Your task to perform on an android device: open chrome privacy settings Image 0: 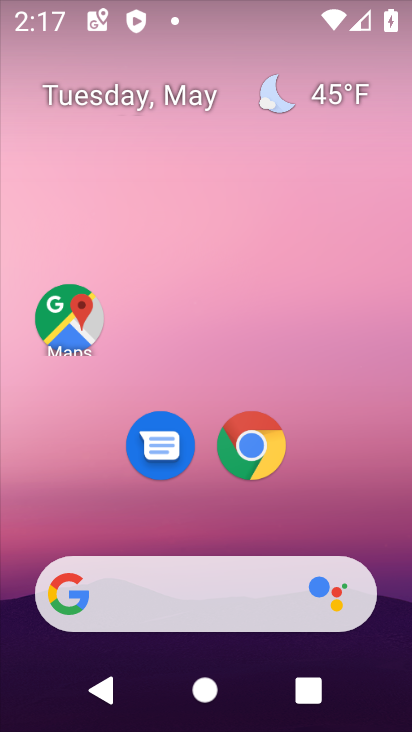
Step 0: click (251, 438)
Your task to perform on an android device: open chrome privacy settings Image 1: 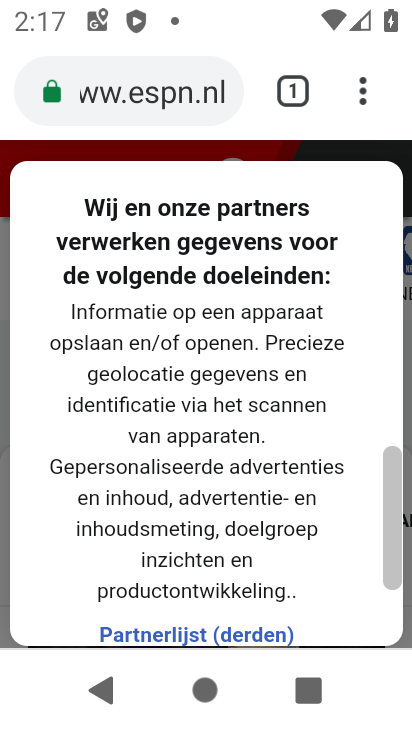
Step 1: click (353, 87)
Your task to perform on an android device: open chrome privacy settings Image 2: 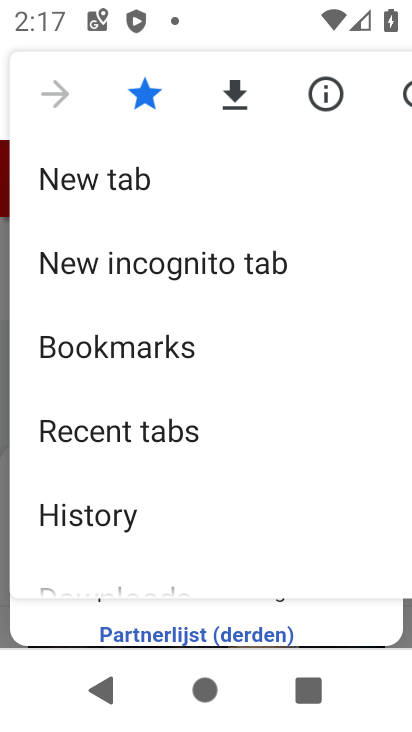
Step 2: drag from (147, 515) to (166, 317)
Your task to perform on an android device: open chrome privacy settings Image 3: 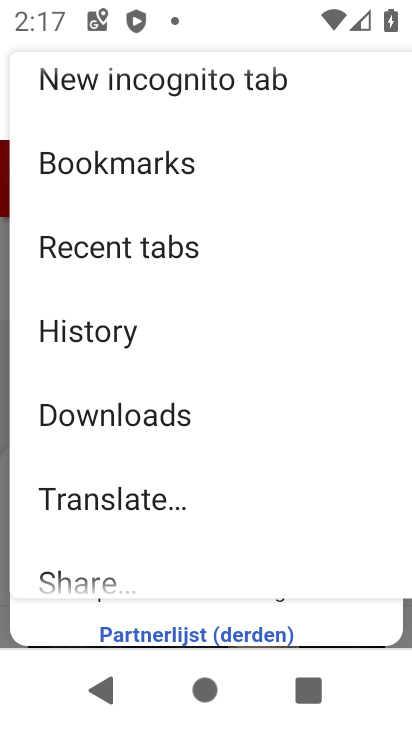
Step 3: drag from (190, 526) to (209, 210)
Your task to perform on an android device: open chrome privacy settings Image 4: 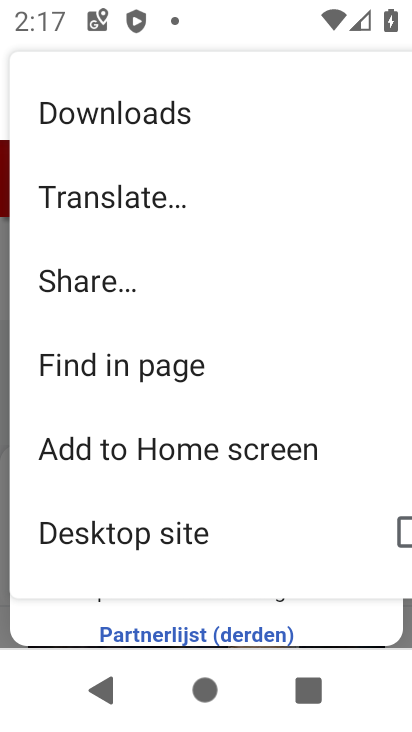
Step 4: drag from (62, 564) to (116, 259)
Your task to perform on an android device: open chrome privacy settings Image 5: 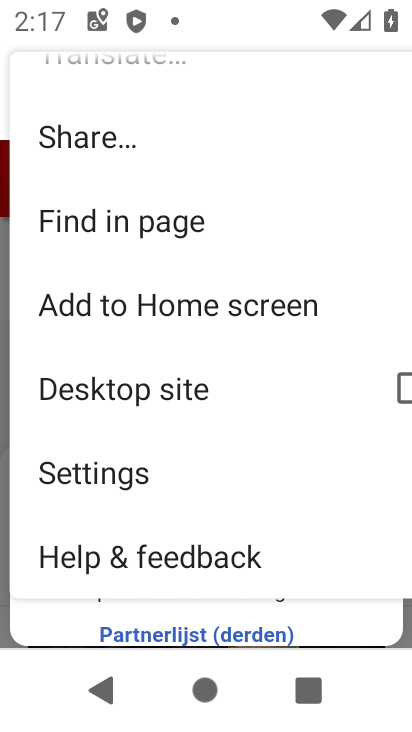
Step 5: drag from (252, 143) to (160, 624)
Your task to perform on an android device: open chrome privacy settings Image 6: 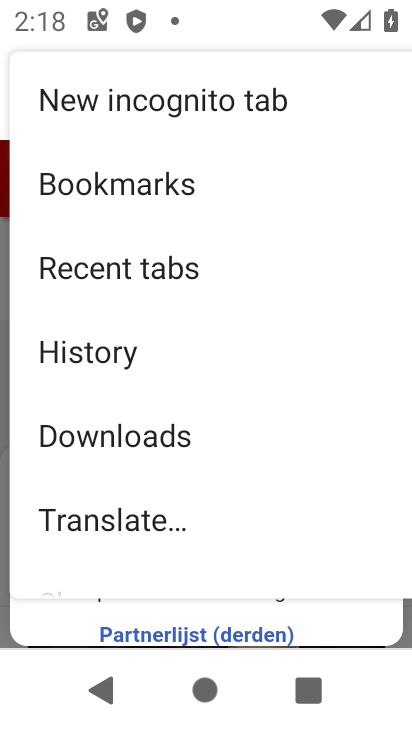
Step 6: drag from (105, 169) to (105, 580)
Your task to perform on an android device: open chrome privacy settings Image 7: 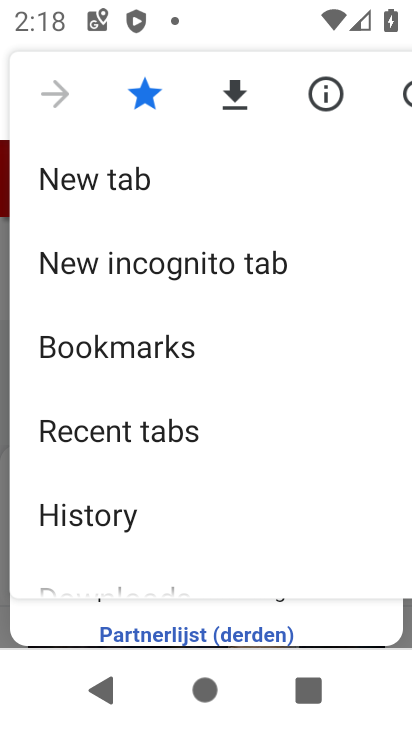
Step 7: drag from (235, 563) to (255, 55)
Your task to perform on an android device: open chrome privacy settings Image 8: 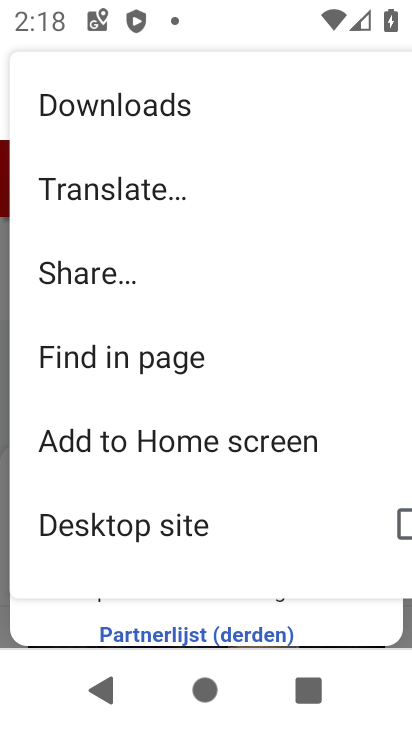
Step 8: drag from (191, 466) to (216, 61)
Your task to perform on an android device: open chrome privacy settings Image 9: 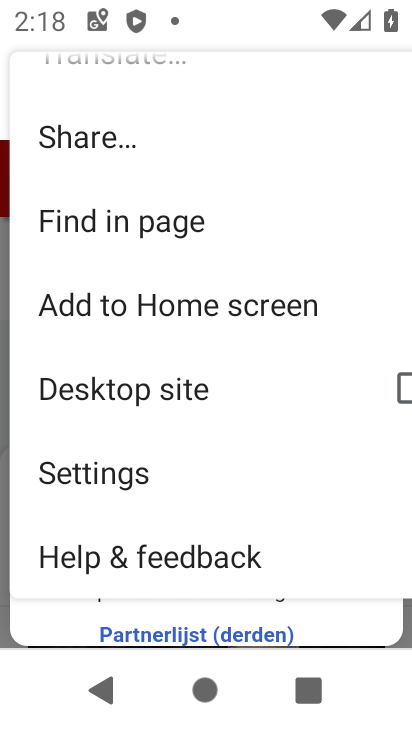
Step 9: click (90, 482)
Your task to perform on an android device: open chrome privacy settings Image 10: 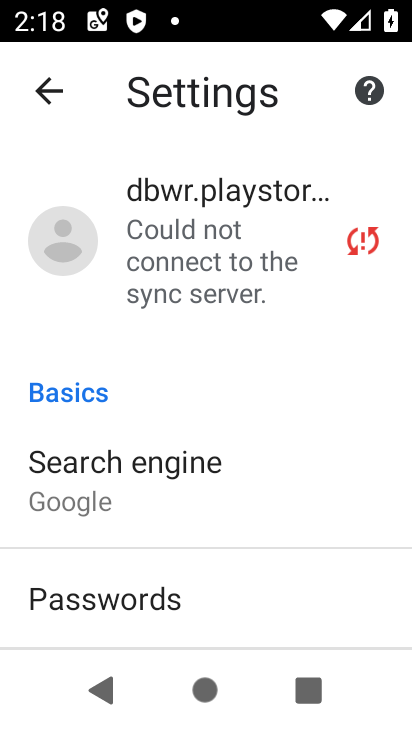
Step 10: drag from (271, 581) to (235, 254)
Your task to perform on an android device: open chrome privacy settings Image 11: 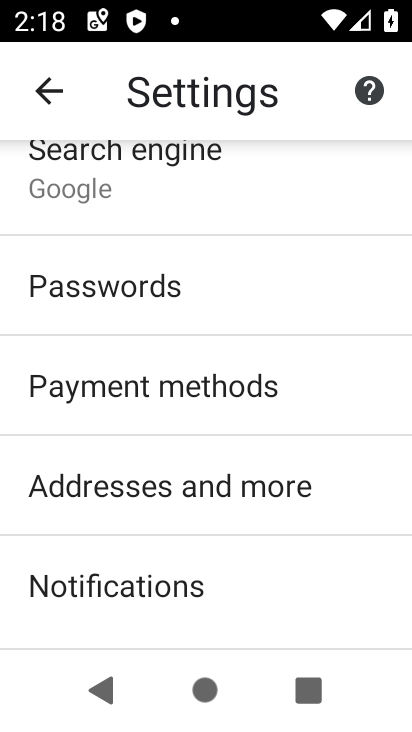
Step 11: drag from (102, 622) to (141, 159)
Your task to perform on an android device: open chrome privacy settings Image 12: 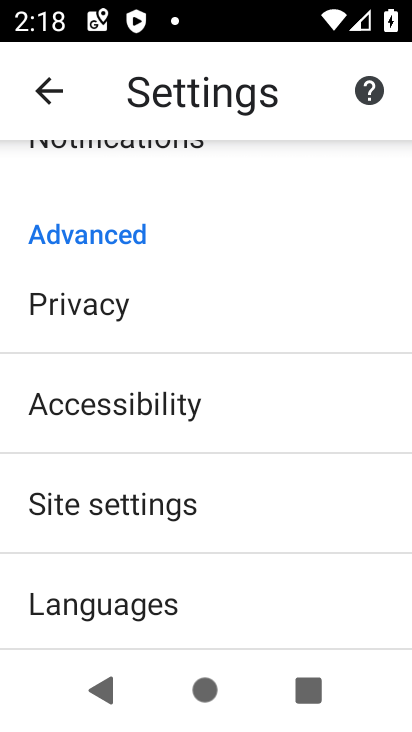
Step 12: click (138, 319)
Your task to perform on an android device: open chrome privacy settings Image 13: 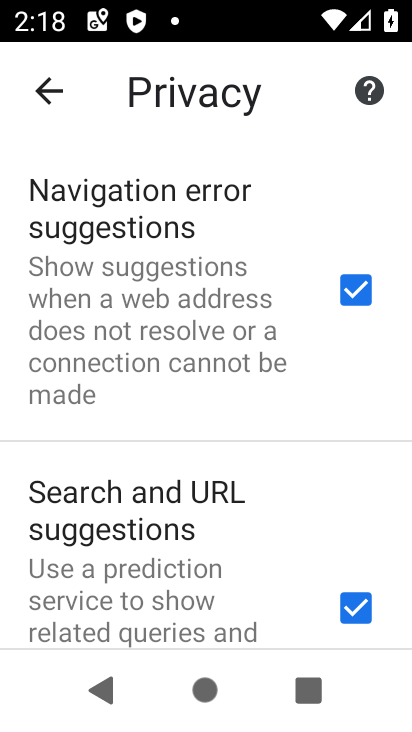
Step 13: task complete